Your task to perform on an android device: see sites visited before in the chrome app Image 0: 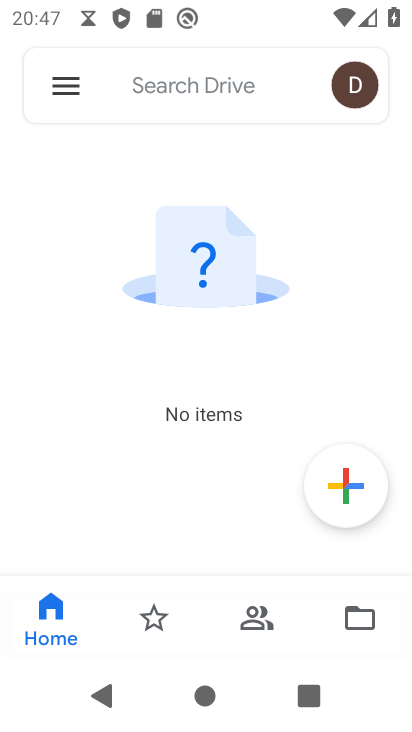
Step 0: press home button
Your task to perform on an android device: see sites visited before in the chrome app Image 1: 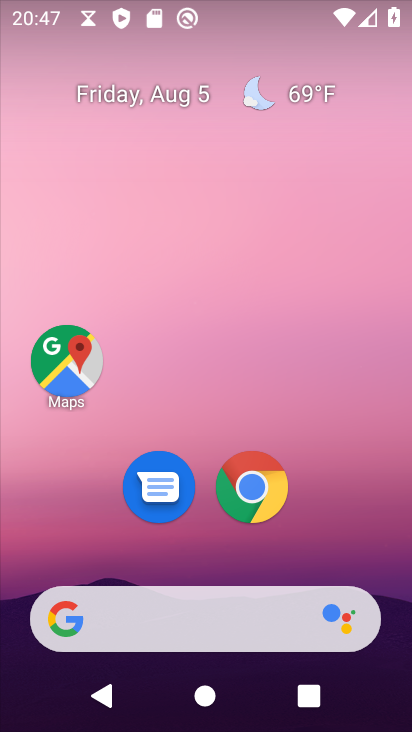
Step 1: click (250, 481)
Your task to perform on an android device: see sites visited before in the chrome app Image 2: 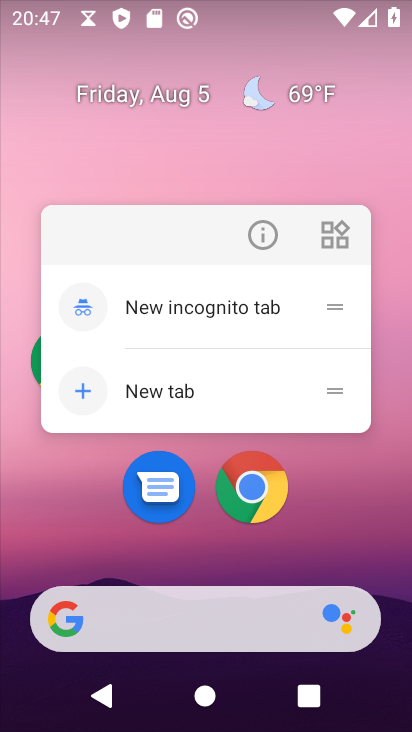
Step 2: click (251, 492)
Your task to perform on an android device: see sites visited before in the chrome app Image 3: 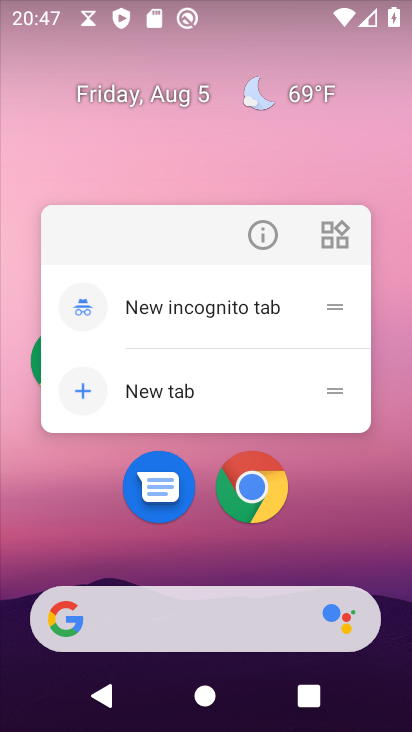
Step 3: click (251, 491)
Your task to perform on an android device: see sites visited before in the chrome app Image 4: 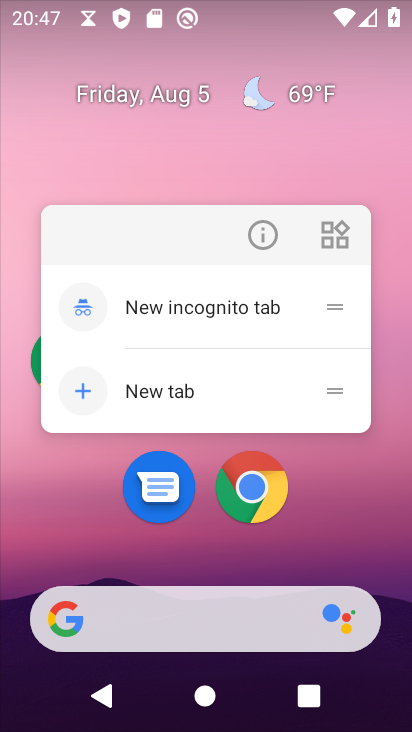
Step 4: click (251, 495)
Your task to perform on an android device: see sites visited before in the chrome app Image 5: 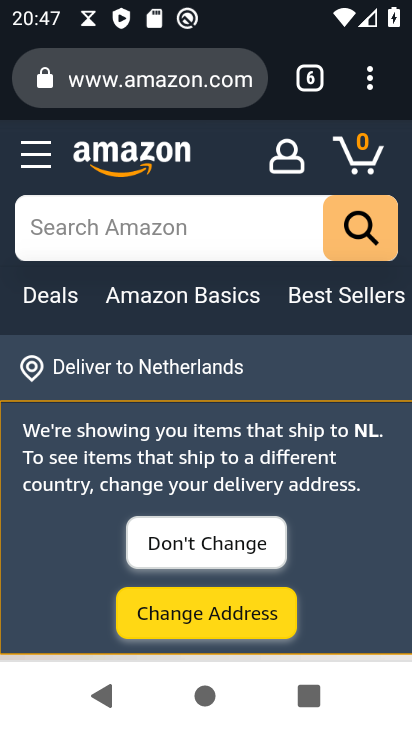
Step 5: task complete